Your task to perform on an android device: add a label to a message in the gmail app Image 0: 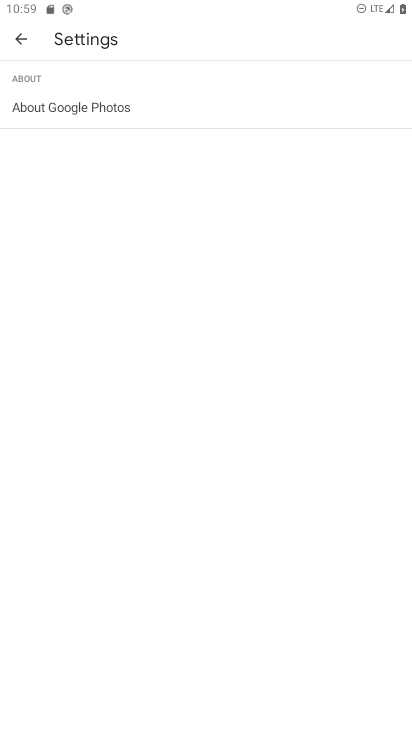
Step 0: press home button
Your task to perform on an android device: add a label to a message in the gmail app Image 1: 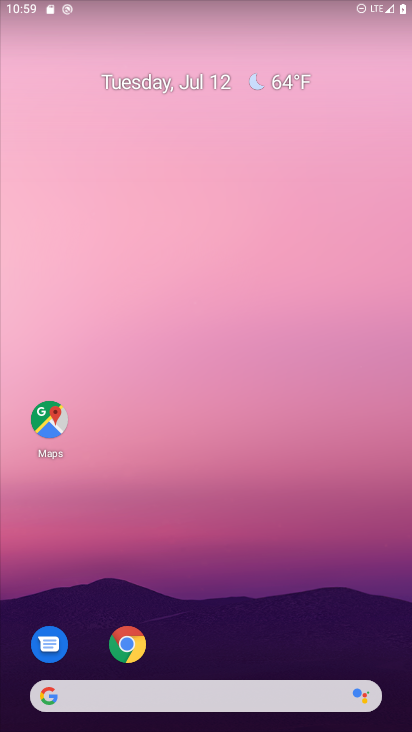
Step 1: drag from (260, 638) to (263, 291)
Your task to perform on an android device: add a label to a message in the gmail app Image 2: 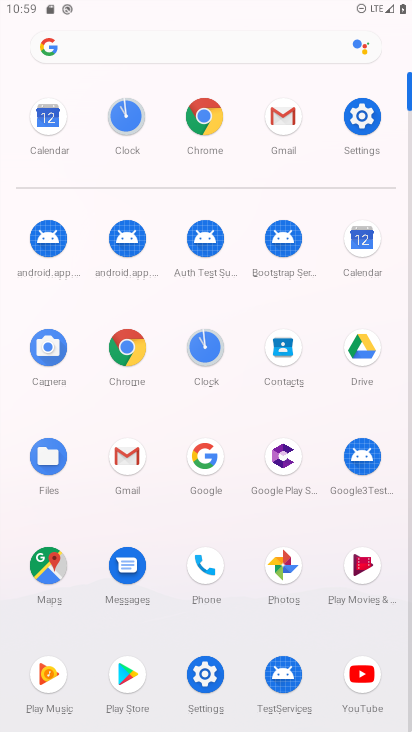
Step 2: click (282, 145)
Your task to perform on an android device: add a label to a message in the gmail app Image 3: 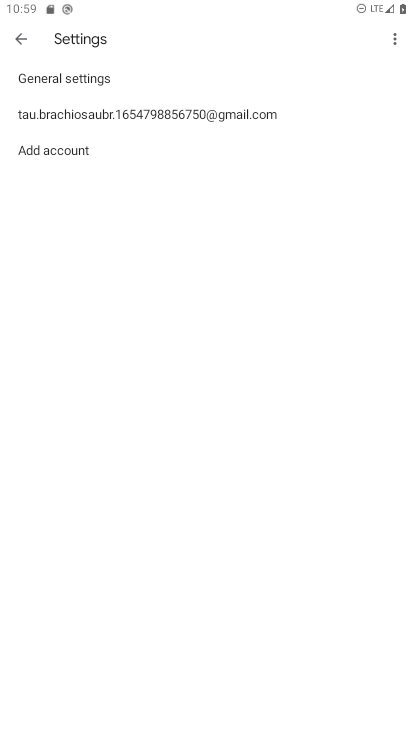
Step 3: click (10, 44)
Your task to perform on an android device: add a label to a message in the gmail app Image 4: 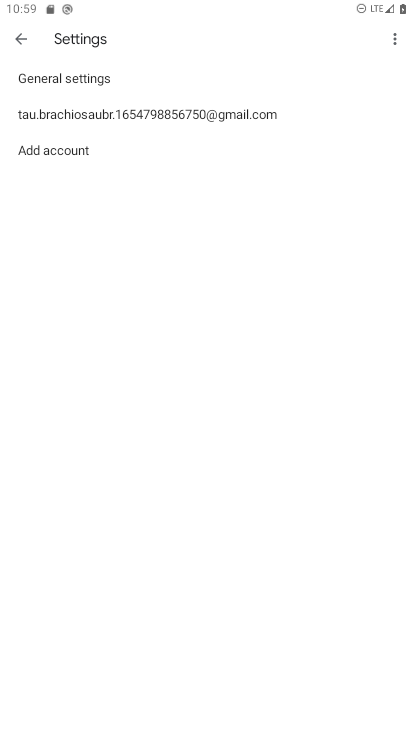
Step 4: click (18, 41)
Your task to perform on an android device: add a label to a message in the gmail app Image 5: 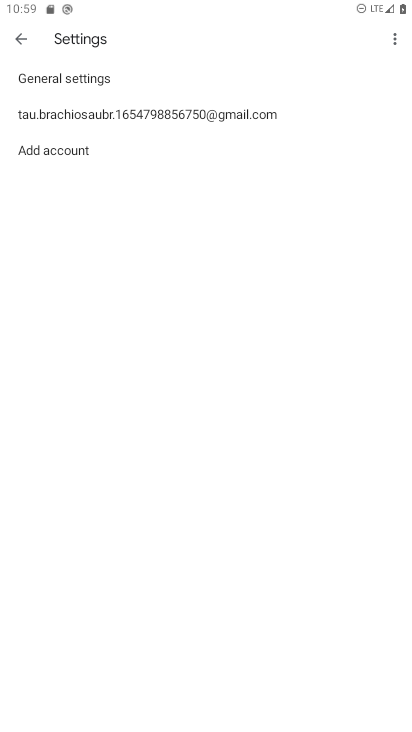
Step 5: click (18, 47)
Your task to perform on an android device: add a label to a message in the gmail app Image 6: 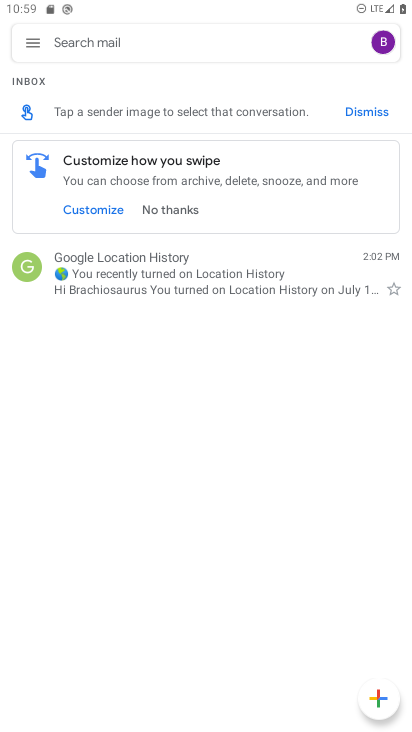
Step 6: click (32, 51)
Your task to perform on an android device: add a label to a message in the gmail app Image 7: 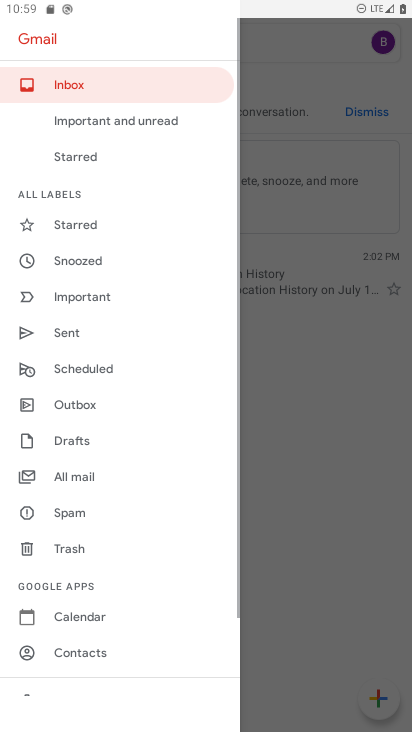
Step 7: drag from (53, 645) to (71, 279)
Your task to perform on an android device: add a label to a message in the gmail app Image 8: 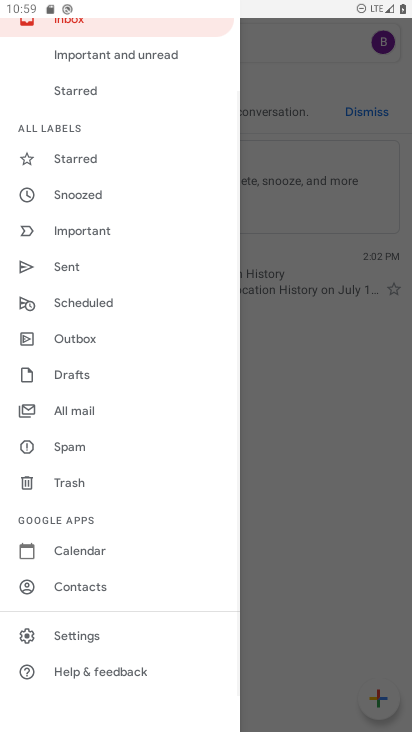
Step 8: click (106, 642)
Your task to perform on an android device: add a label to a message in the gmail app Image 9: 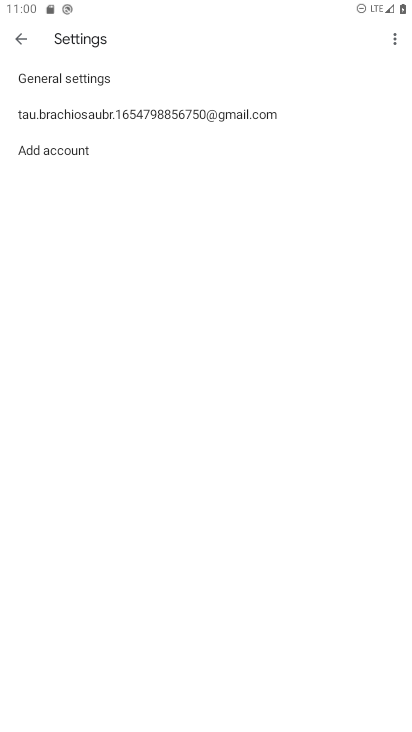
Step 9: click (155, 114)
Your task to perform on an android device: add a label to a message in the gmail app Image 10: 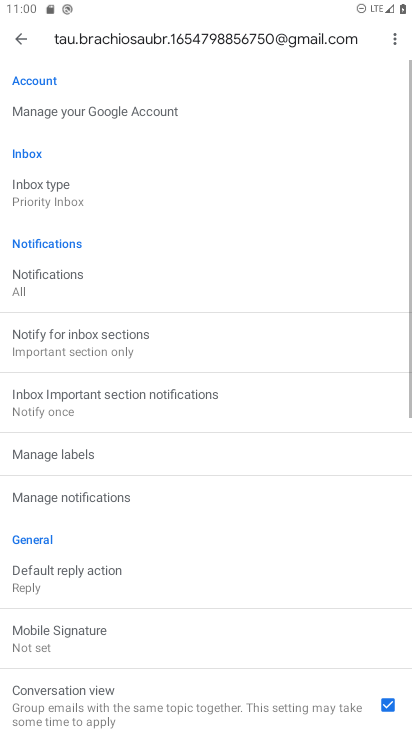
Step 10: task complete